Your task to perform on an android device: Go to sound settings Image 0: 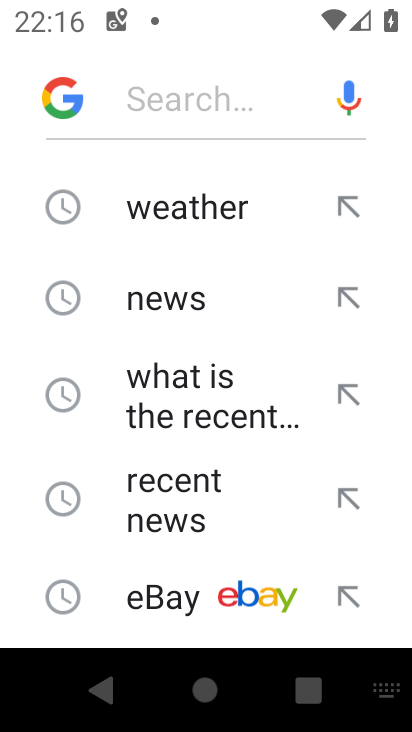
Step 0: press home button
Your task to perform on an android device: Go to sound settings Image 1: 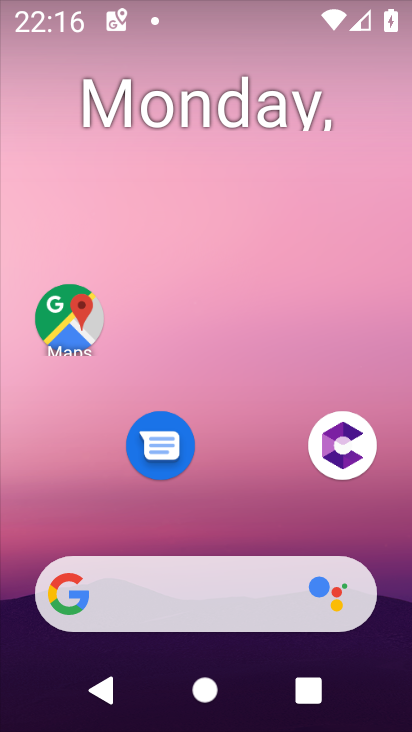
Step 1: drag from (318, 381) to (306, 34)
Your task to perform on an android device: Go to sound settings Image 2: 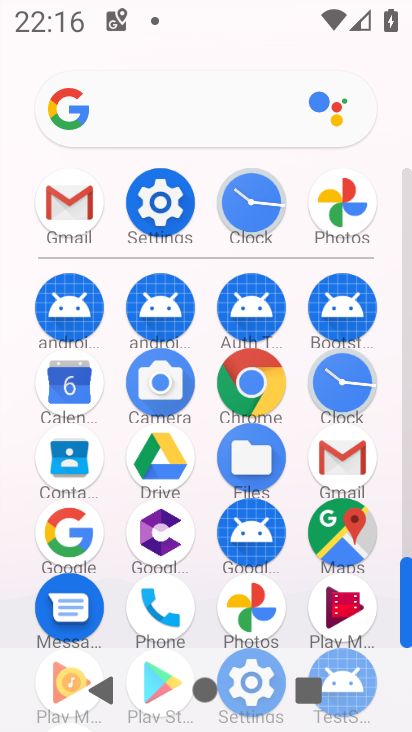
Step 2: click (162, 200)
Your task to perform on an android device: Go to sound settings Image 3: 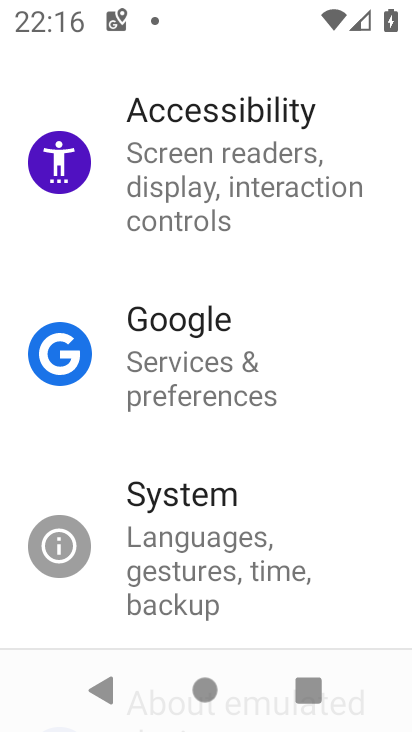
Step 3: drag from (45, 266) to (69, 683)
Your task to perform on an android device: Go to sound settings Image 4: 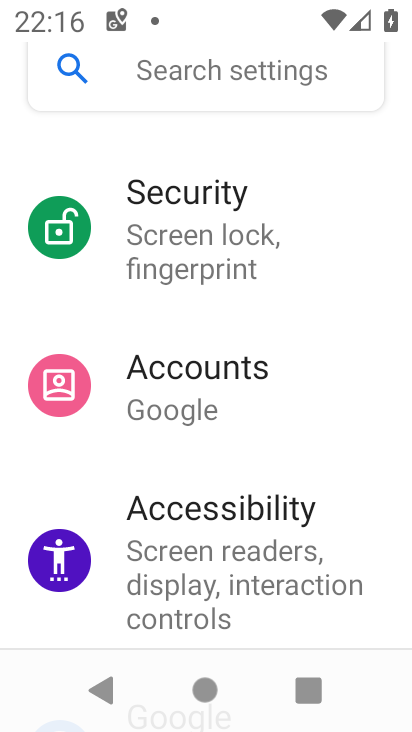
Step 4: drag from (36, 302) to (179, 715)
Your task to perform on an android device: Go to sound settings Image 5: 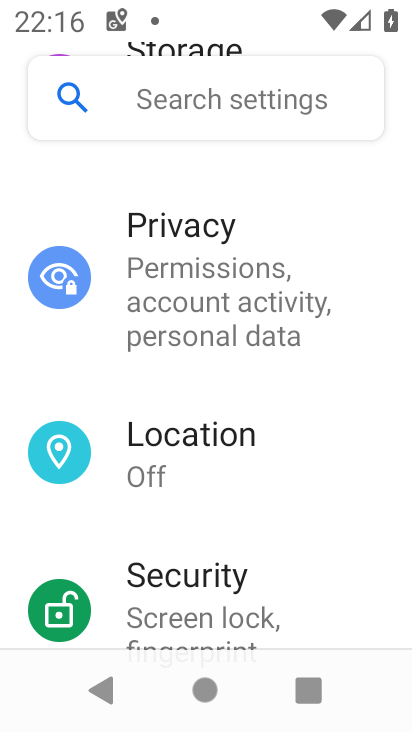
Step 5: drag from (51, 201) to (139, 728)
Your task to perform on an android device: Go to sound settings Image 6: 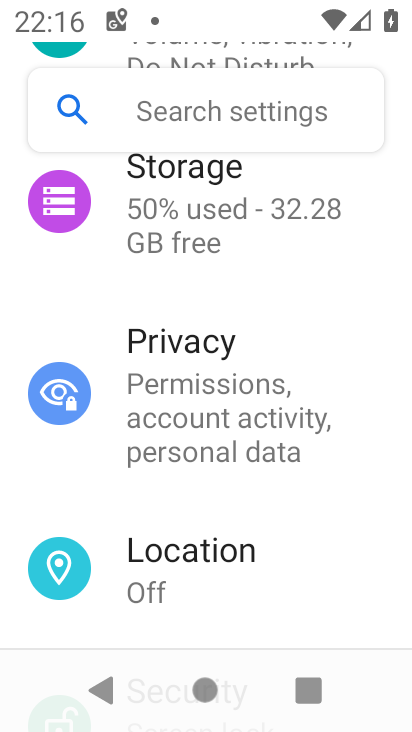
Step 6: drag from (53, 289) to (173, 729)
Your task to perform on an android device: Go to sound settings Image 7: 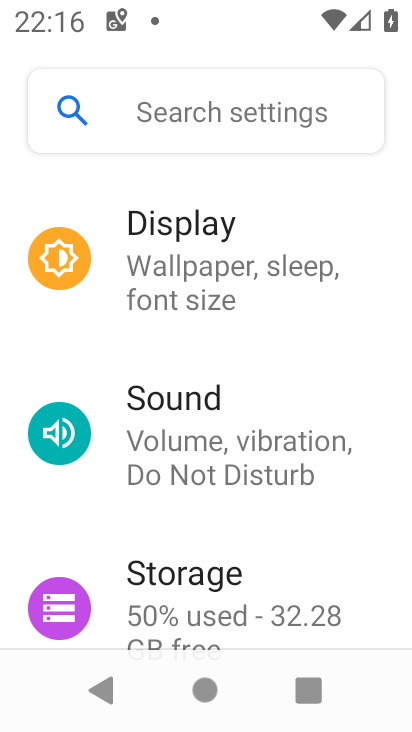
Step 7: click (198, 422)
Your task to perform on an android device: Go to sound settings Image 8: 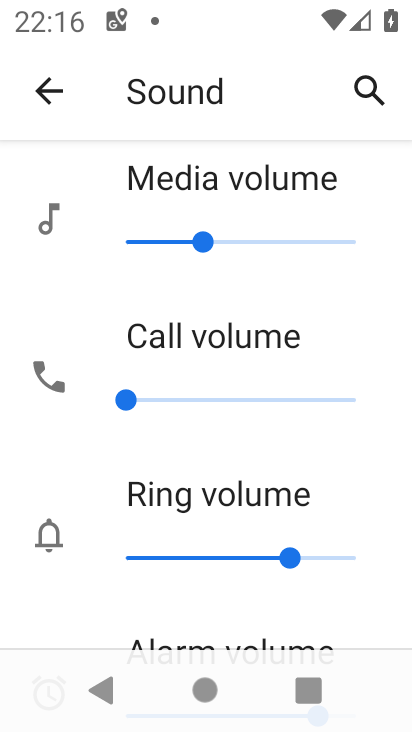
Step 8: task complete